Your task to perform on an android device: Is it going to rain today? Image 0: 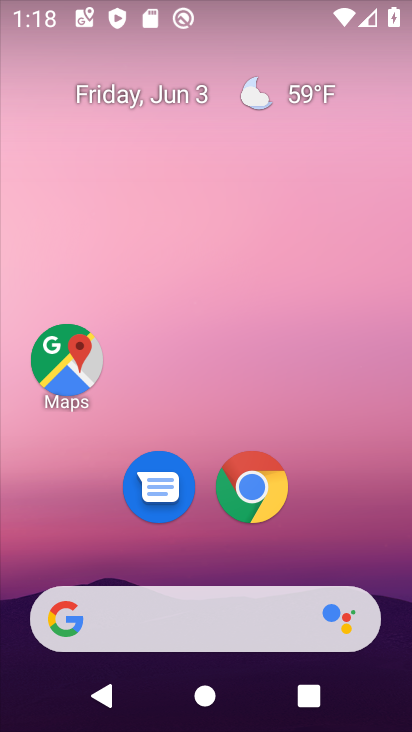
Step 0: press home button
Your task to perform on an android device: Is it going to rain today? Image 1: 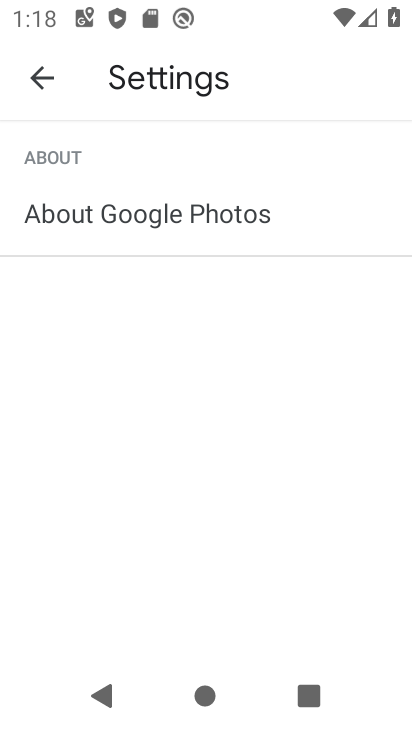
Step 1: press home button
Your task to perform on an android device: Is it going to rain today? Image 2: 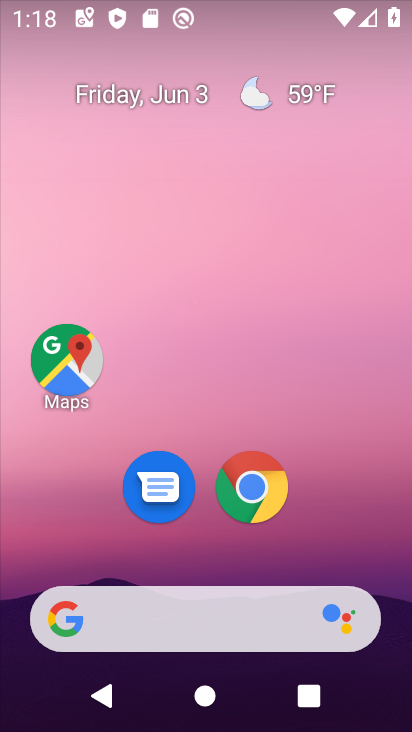
Step 2: click (303, 83)
Your task to perform on an android device: Is it going to rain today? Image 3: 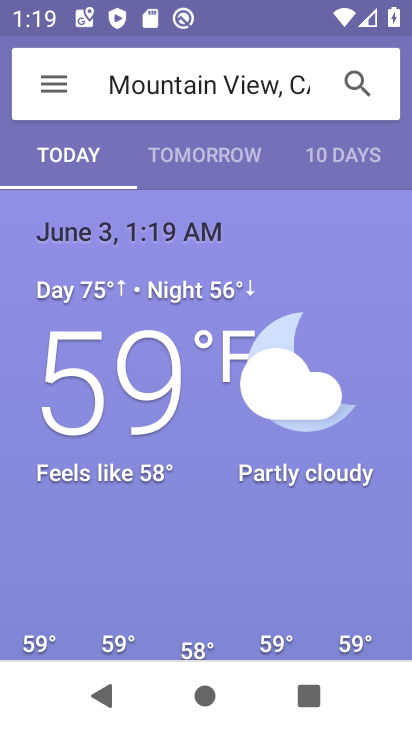
Step 3: click (214, 162)
Your task to perform on an android device: Is it going to rain today? Image 4: 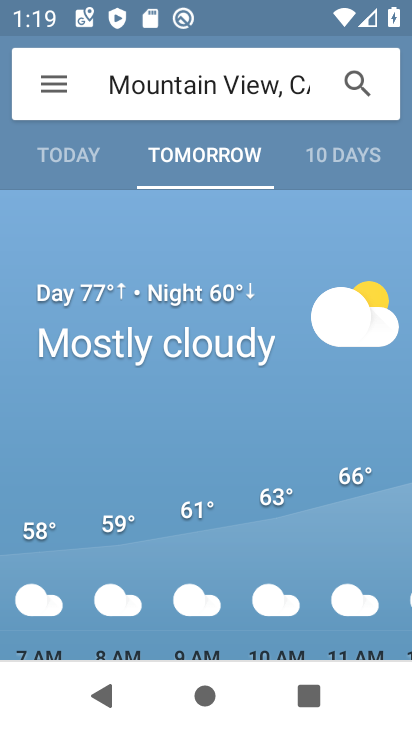
Step 4: drag from (240, 594) to (262, 338)
Your task to perform on an android device: Is it going to rain today? Image 5: 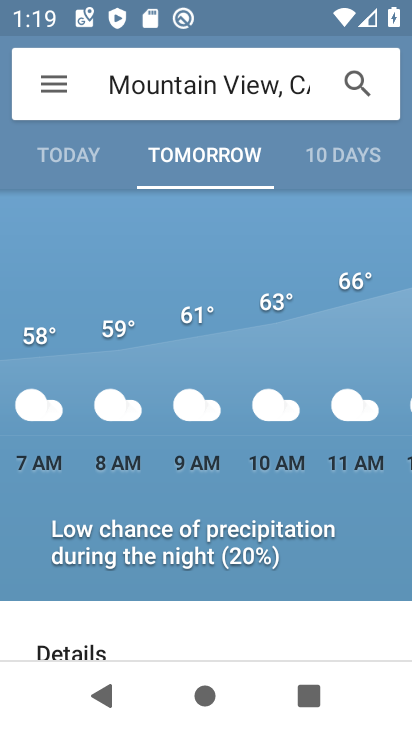
Step 5: click (346, 414)
Your task to perform on an android device: Is it going to rain today? Image 6: 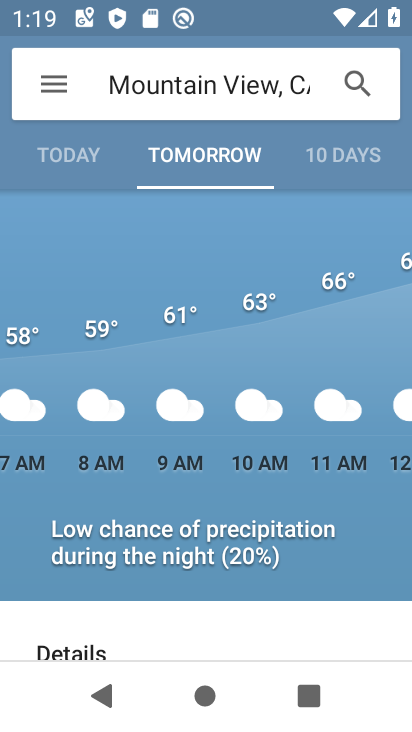
Step 6: drag from (157, 415) to (115, 412)
Your task to perform on an android device: Is it going to rain today? Image 7: 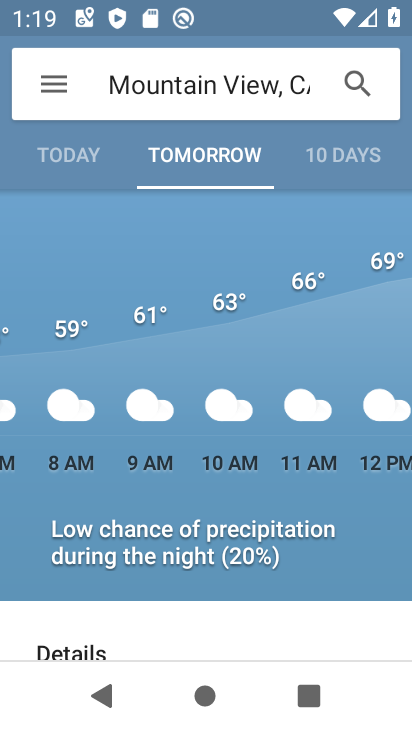
Step 7: drag from (383, 413) to (97, 413)
Your task to perform on an android device: Is it going to rain today? Image 8: 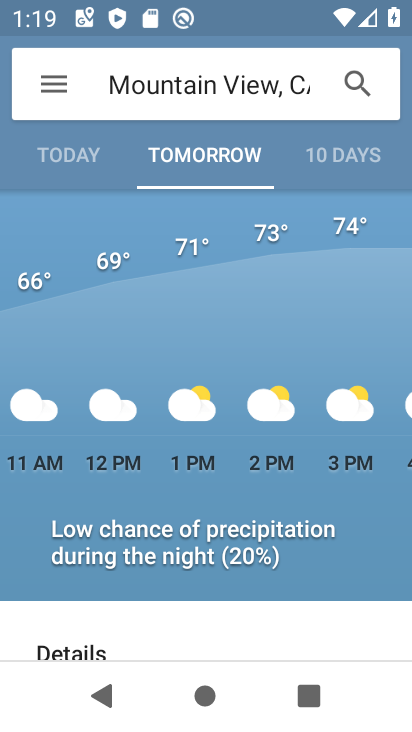
Step 8: click (65, 413)
Your task to perform on an android device: Is it going to rain today? Image 9: 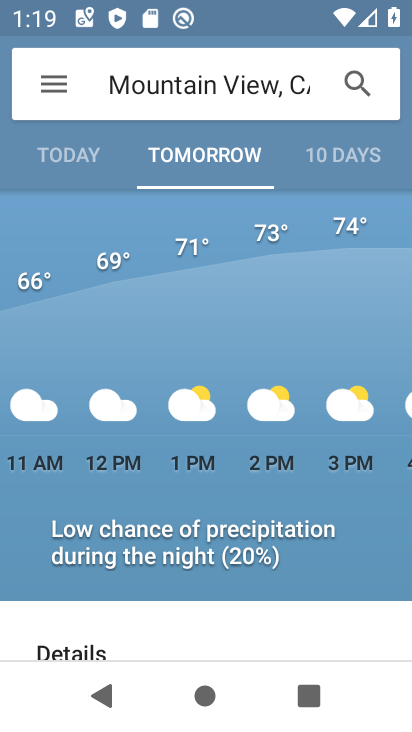
Step 9: task complete